Your task to perform on an android device: Open my contact list Image 0: 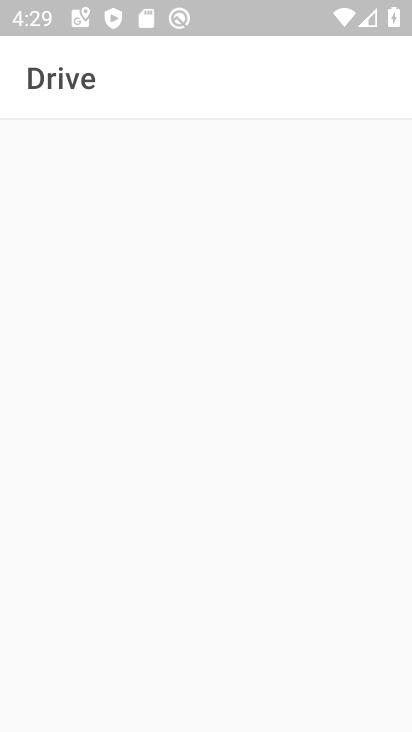
Step 0: press back button
Your task to perform on an android device: Open my contact list Image 1: 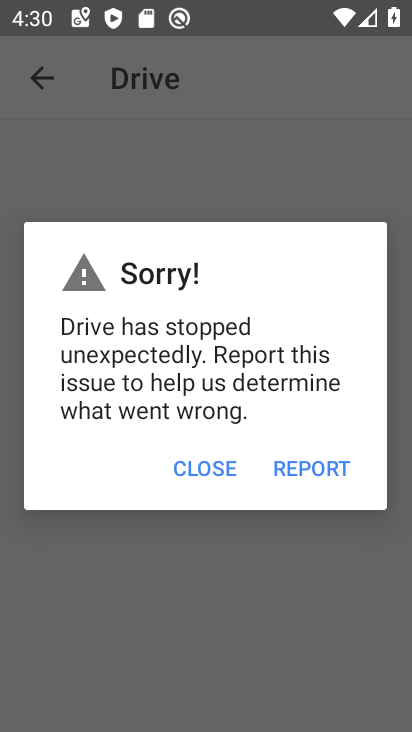
Step 1: press back button
Your task to perform on an android device: Open my contact list Image 2: 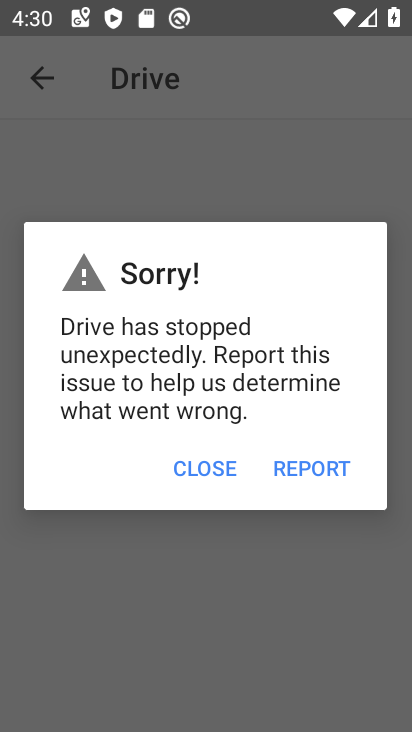
Step 2: press home button
Your task to perform on an android device: Open my contact list Image 3: 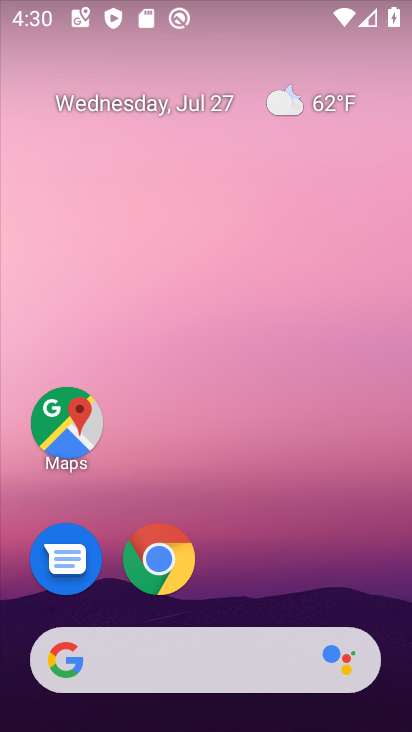
Step 3: drag from (213, 604) to (291, 12)
Your task to perform on an android device: Open my contact list Image 4: 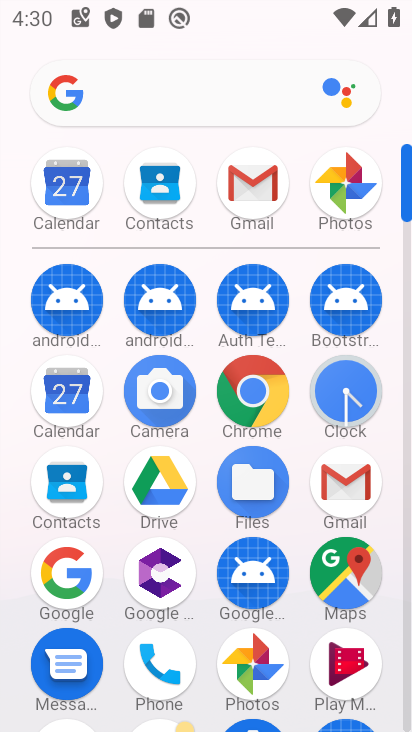
Step 4: click (56, 484)
Your task to perform on an android device: Open my contact list Image 5: 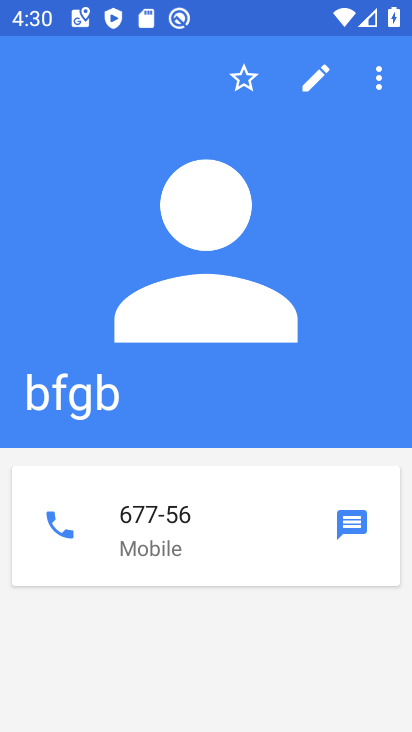
Step 5: task complete